Your task to perform on an android device: Empty the shopping cart on costco. Search for razer blade on costco, select the first entry, and add it to the cart. Image 0: 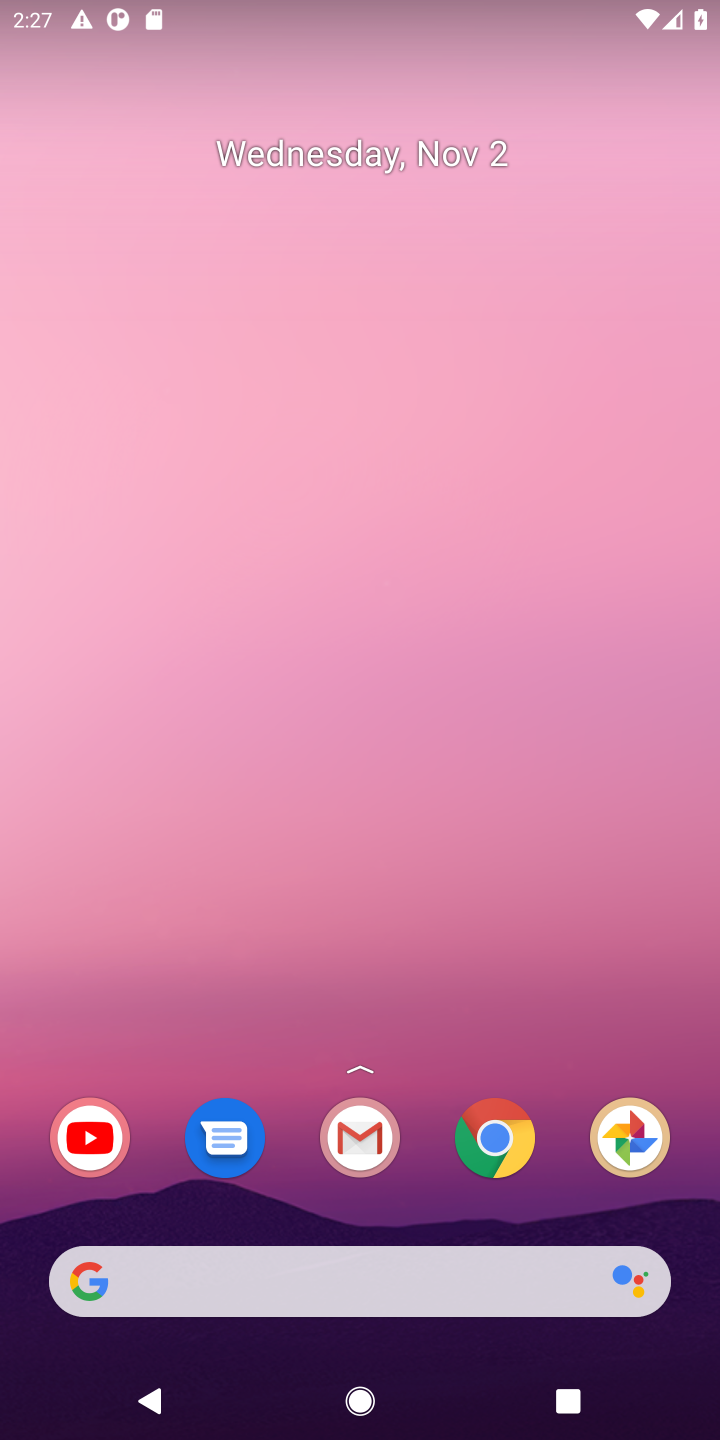
Step 0: press home button
Your task to perform on an android device: Empty the shopping cart on costco. Search for razer blade on costco, select the first entry, and add it to the cart. Image 1: 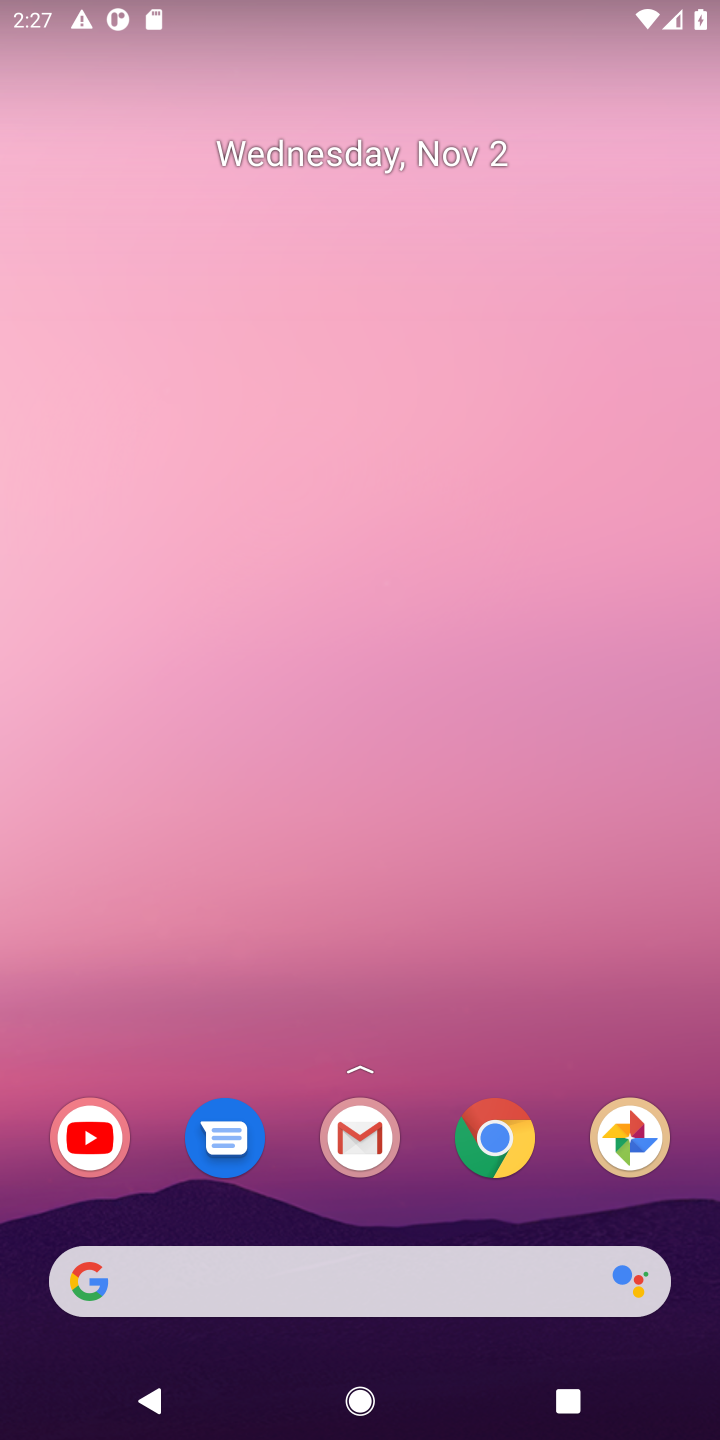
Step 1: click (152, 1283)
Your task to perform on an android device: Empty the shopping cart on costco. Search for razer blade on costco, select the first entry, and add it to the cart. Image 2: 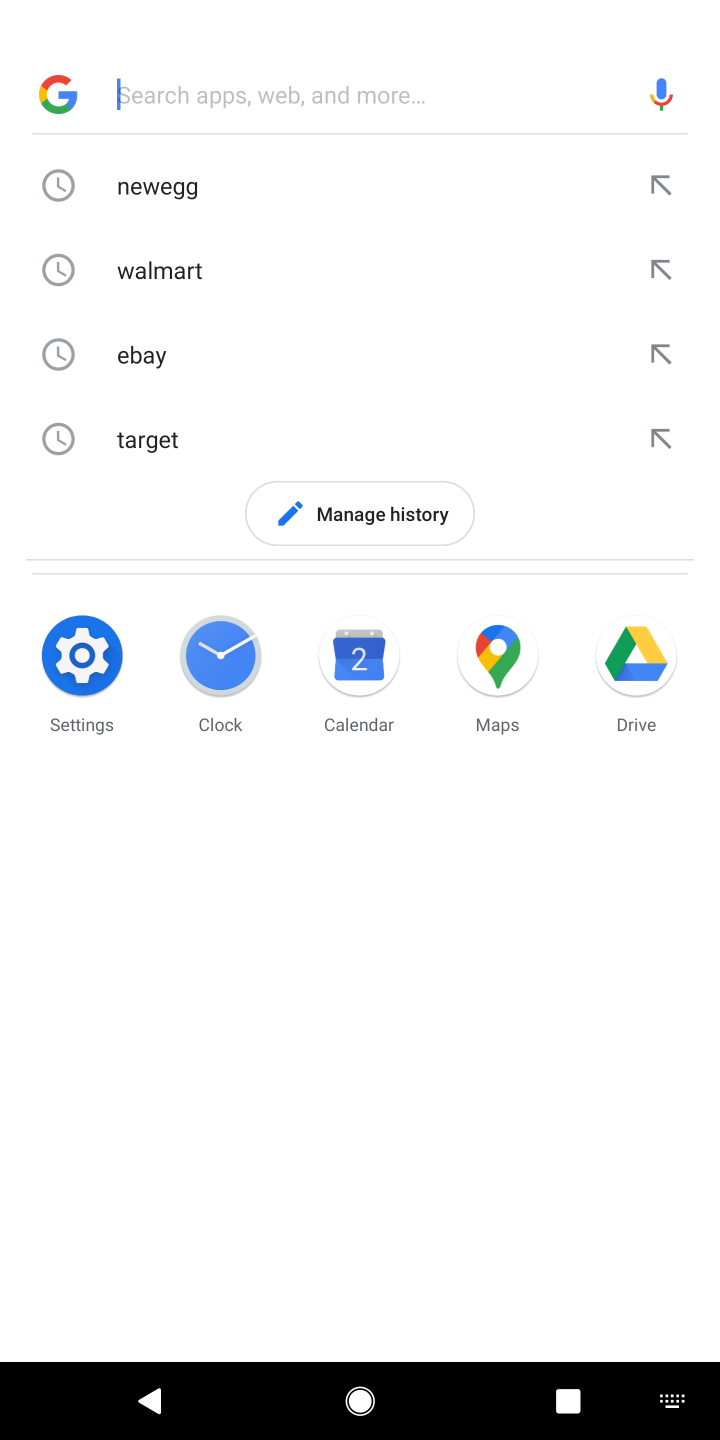
Step 2: press enter
Your task to perform on an android device: Empty the shopping cart on costco. Search for razer blade on costco, select the first entry, and add it to the cart. Image 3: 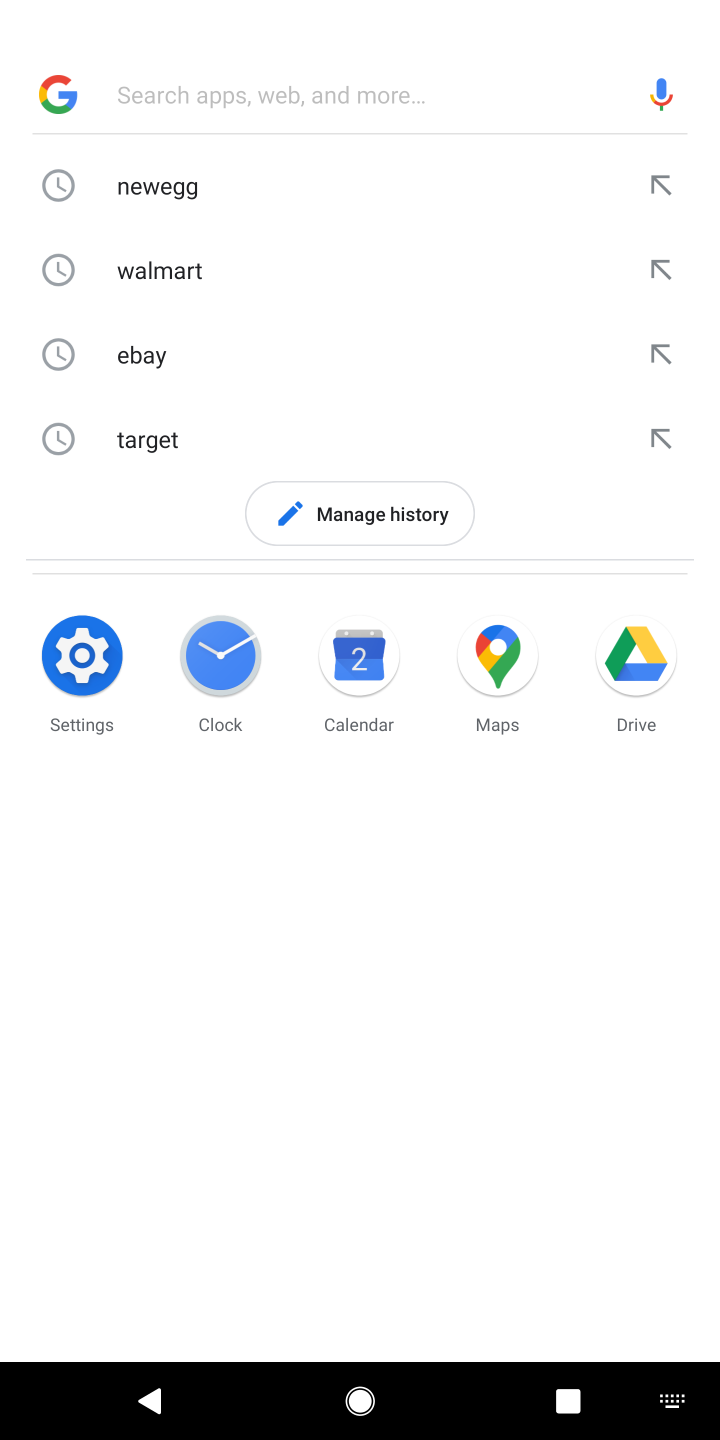
Step 3: type "costco"
Your task to perform on an android device: Empty the shopping cart on costco. Search for razer blade on costco, select the first entry, and add it to the cart. Image 4: 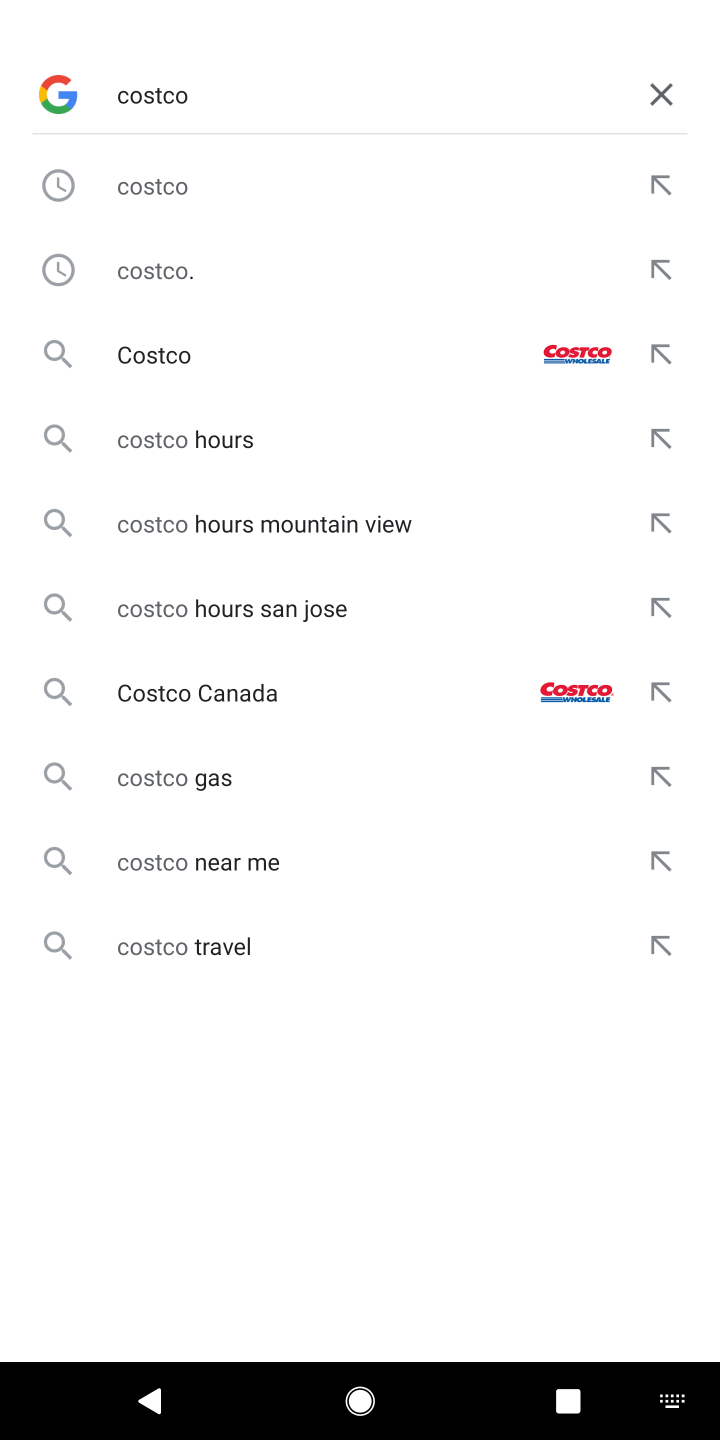
Step 4: press enter
Your task to perform on an android device: Empty the shopping cart on costco. Search for razer blade on costco, select the first entry, and add it to the cart. Image 5: 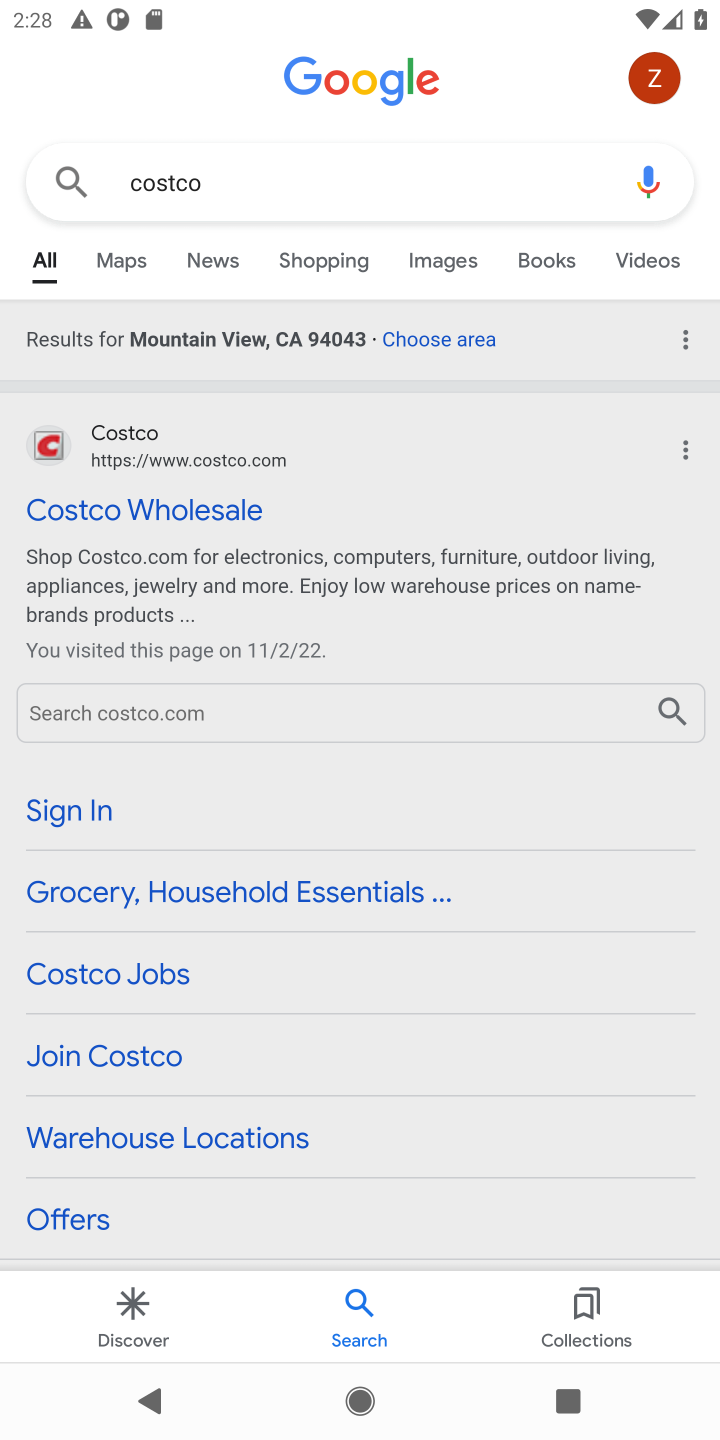
Step 5: click (167, 514)
Your task to perform on an android device: Empty the shopping cart on costco. Search for razer blade on costco, select the first entry, and add it to the cart. Image 6: 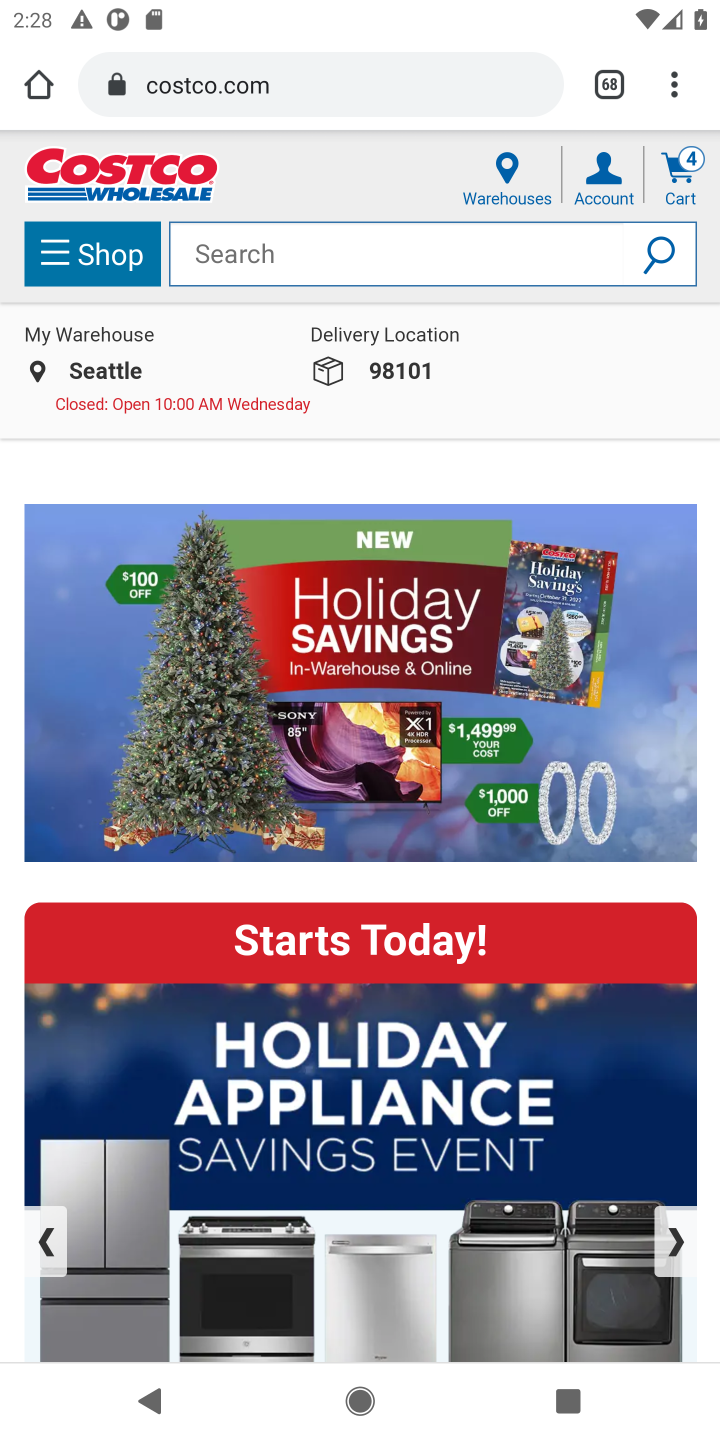
Step 6: click (676, 164)
Your task to perform on an android device: Empty the shopping cart on costco. Search for razer blade on costco, select the first entry, and add it to the cart. Image 7: 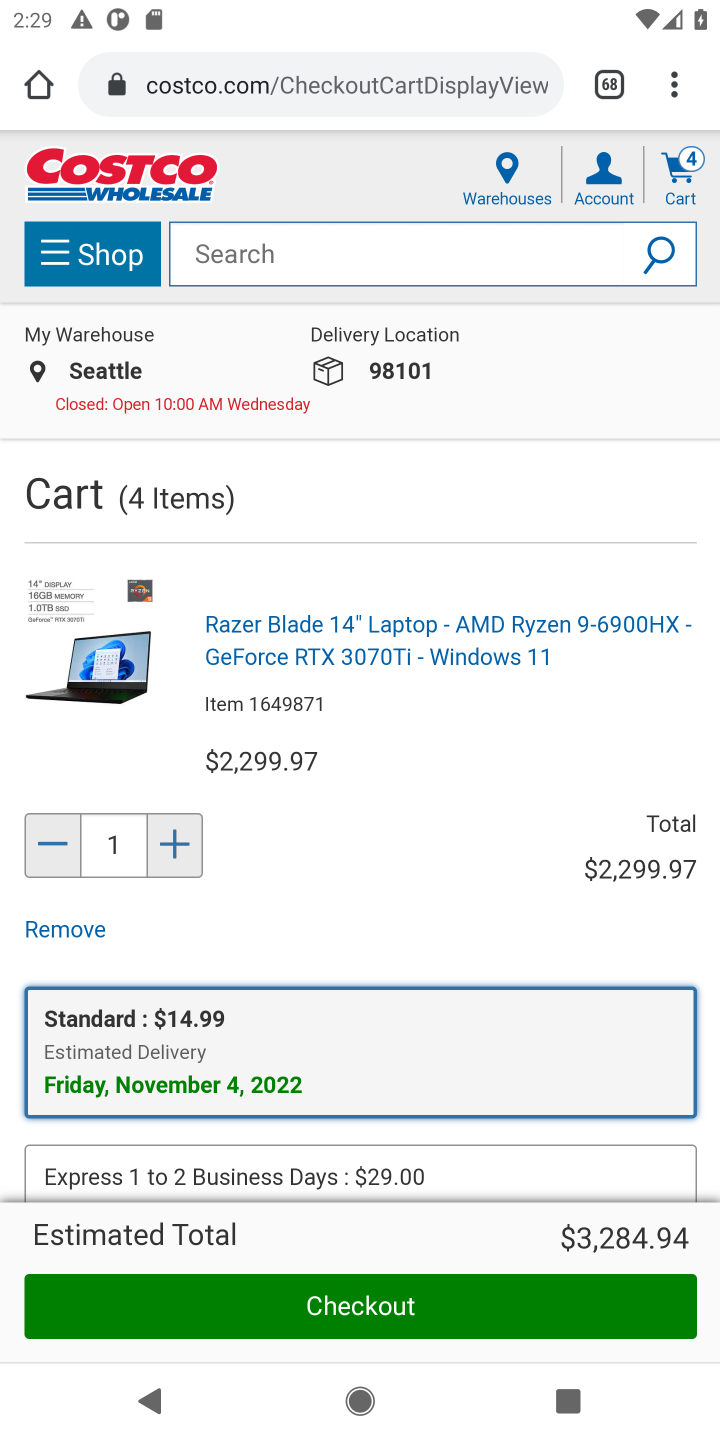
Step 7: click (51, 930)
Your task to perform on an android device: Empty the shopping cart on costco. Search for razer blade on costco, select the first entry, and add it to the cart. Image 8: 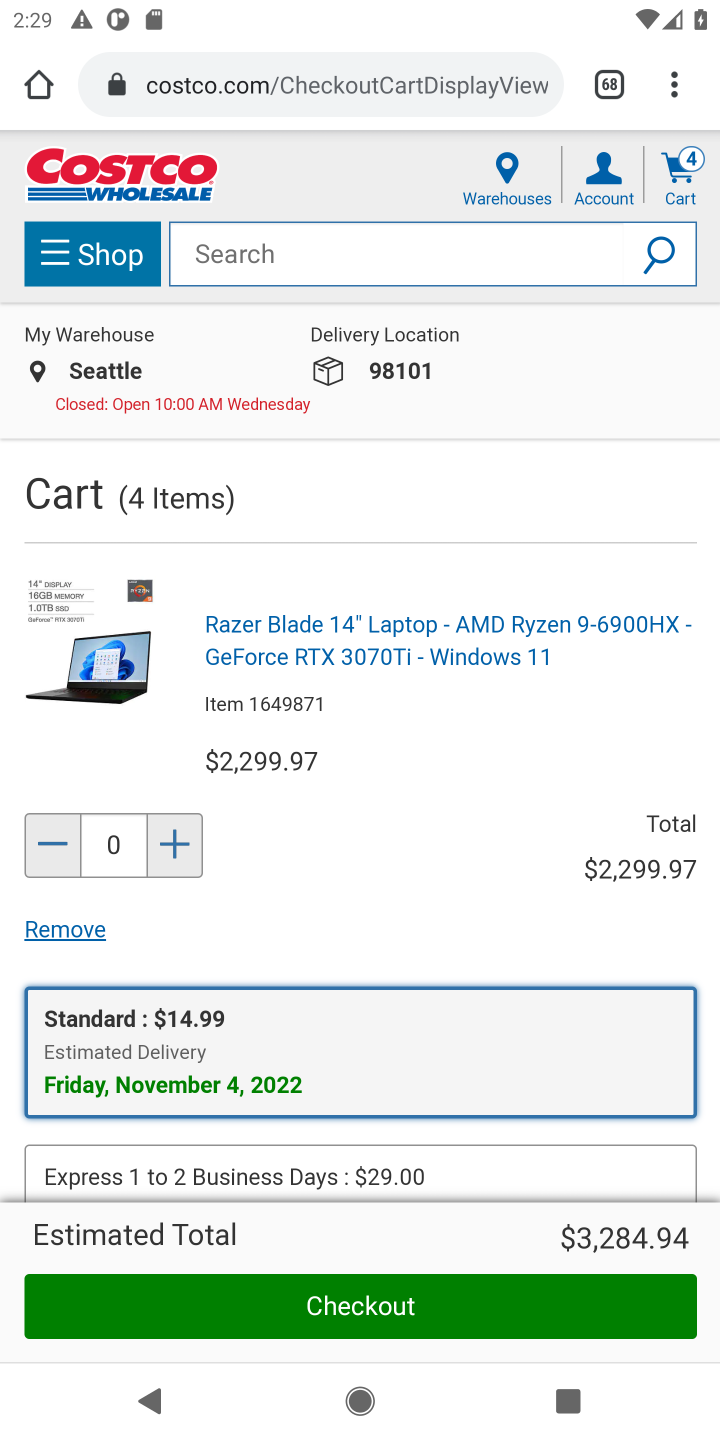
Step 8: task complete